Your task to perform on an android device: open app "Etsy: Buy & Sell Unique Items" Image 0: 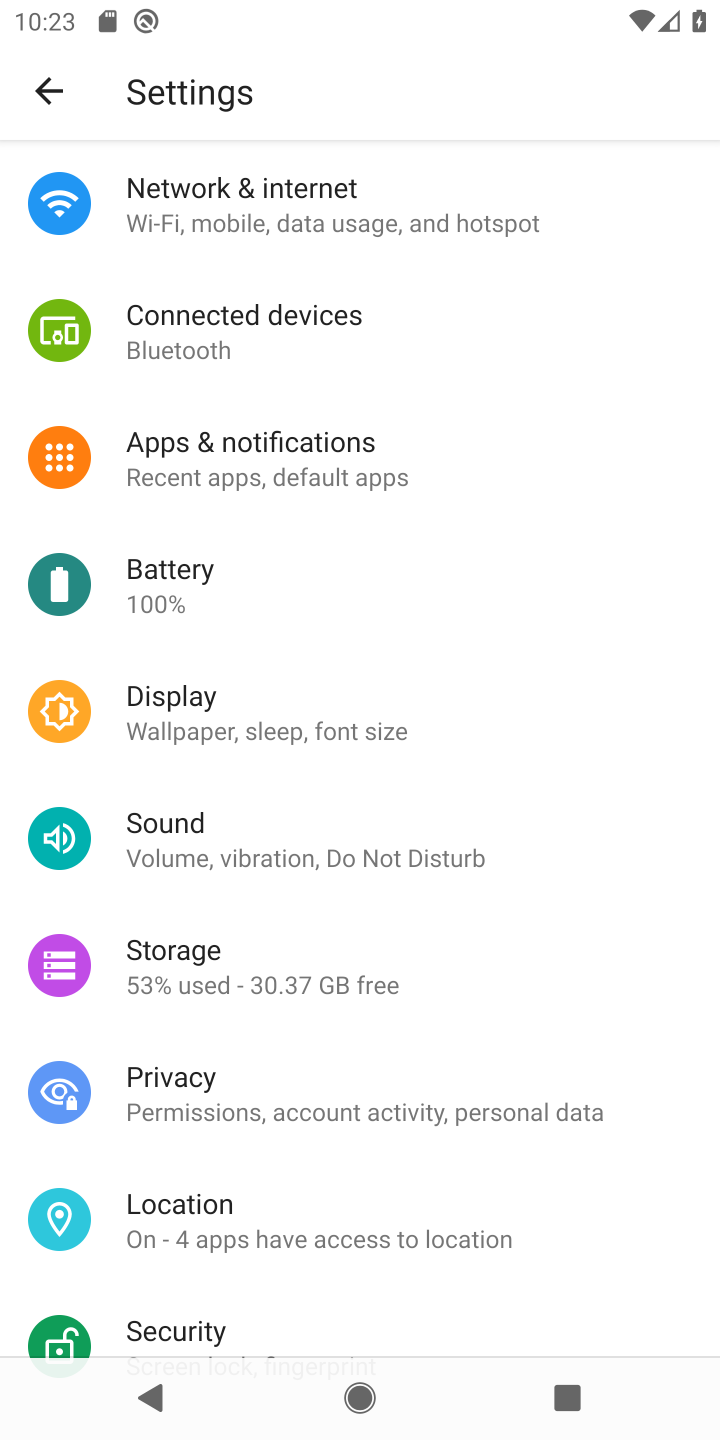
Step 0: press home button
Your task to perform on an android device: open app "Etsy: Buy & Sell Unique Items" Image 1: 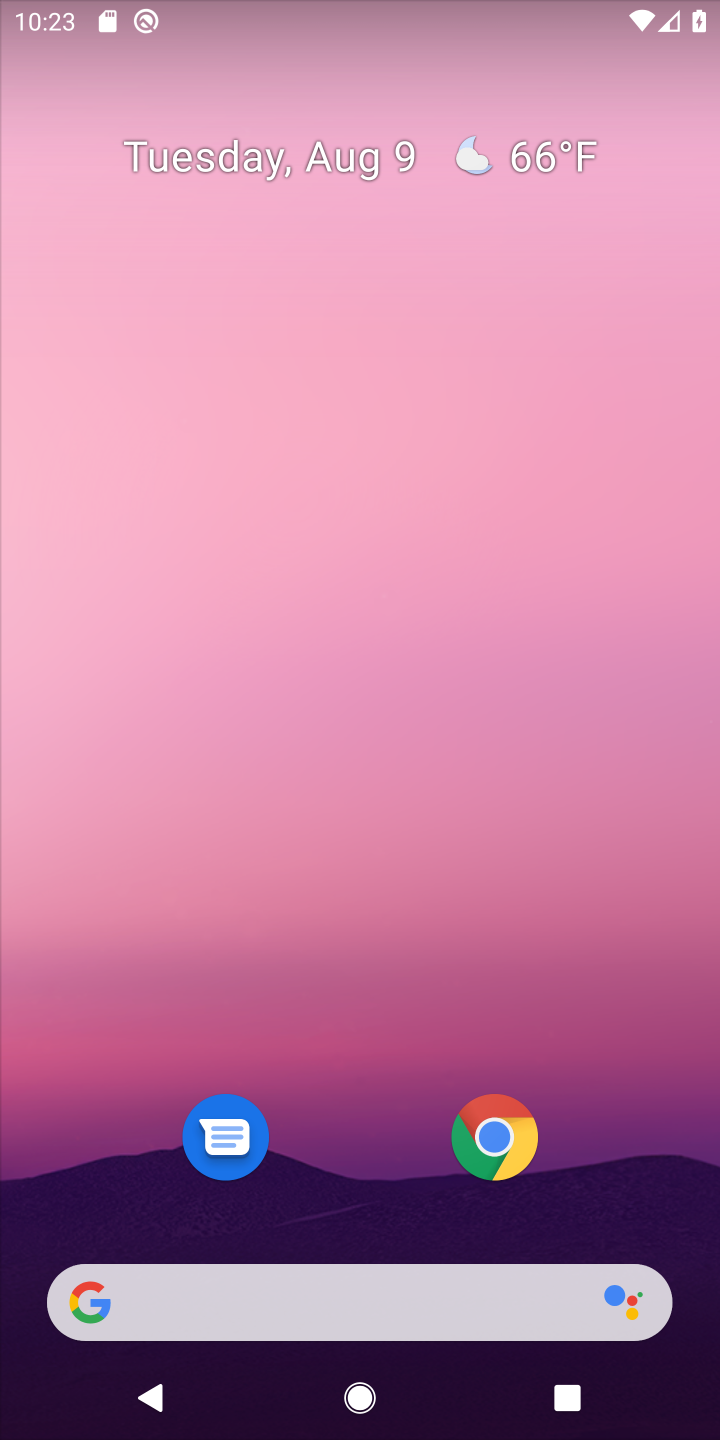
Step 1: drag from (365, 1142) to (349, 420)
Your task to perform on an android device: open app "Etsy: Buy & Sell Unique Items" Image 2: 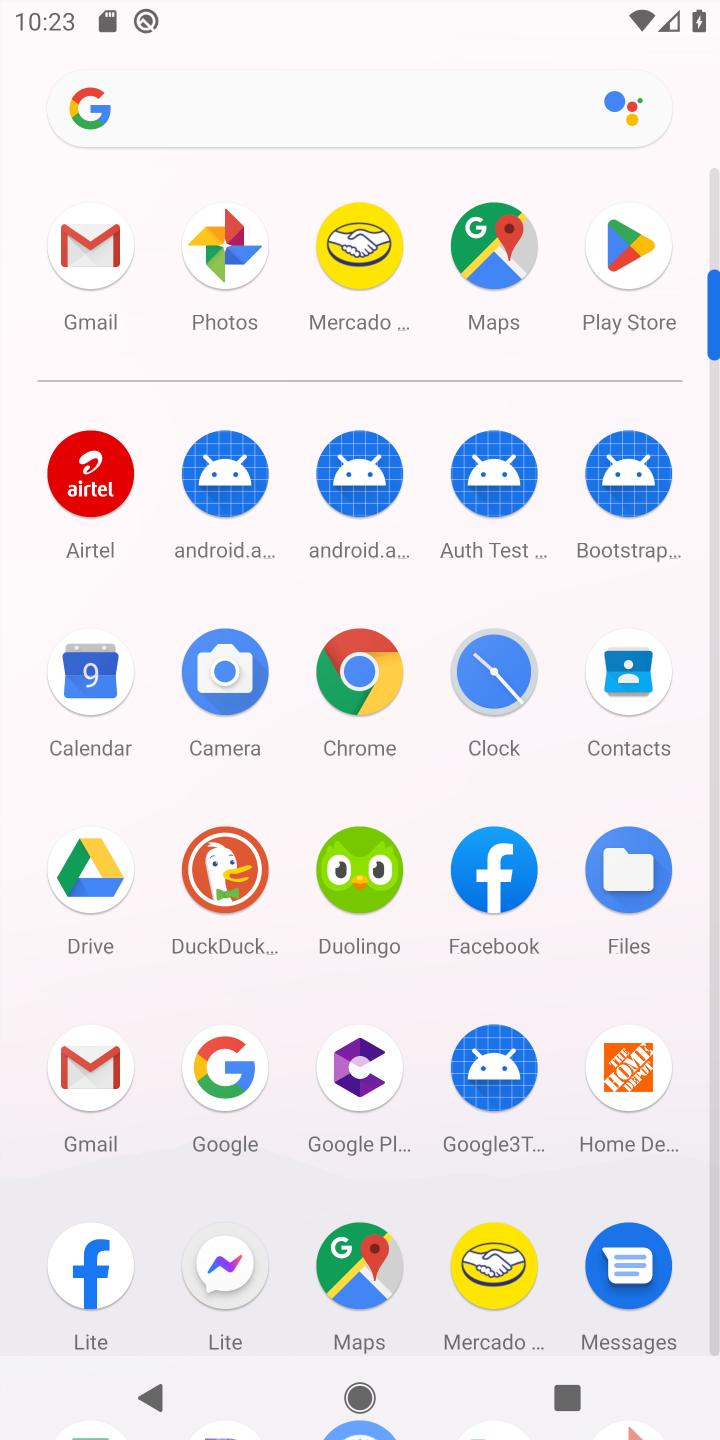
Step 2: click (621, 261)
Your task to perform on an android device: open app "Etsy: Buy & Sell Unique Items" Image 3: 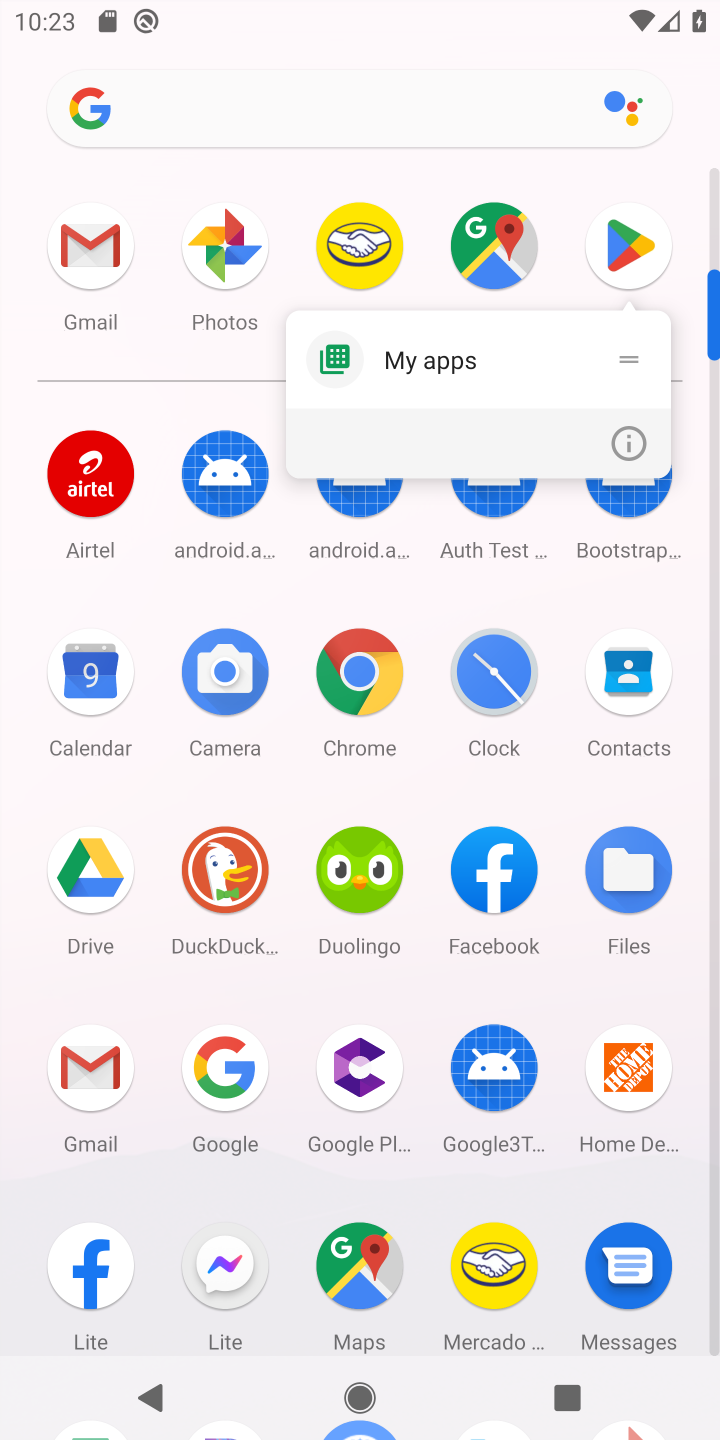
Step 3: click (599, 221)
Your task to perform on an android device: open app "Etsy: Buy & Sell Unique Items" Image 4: 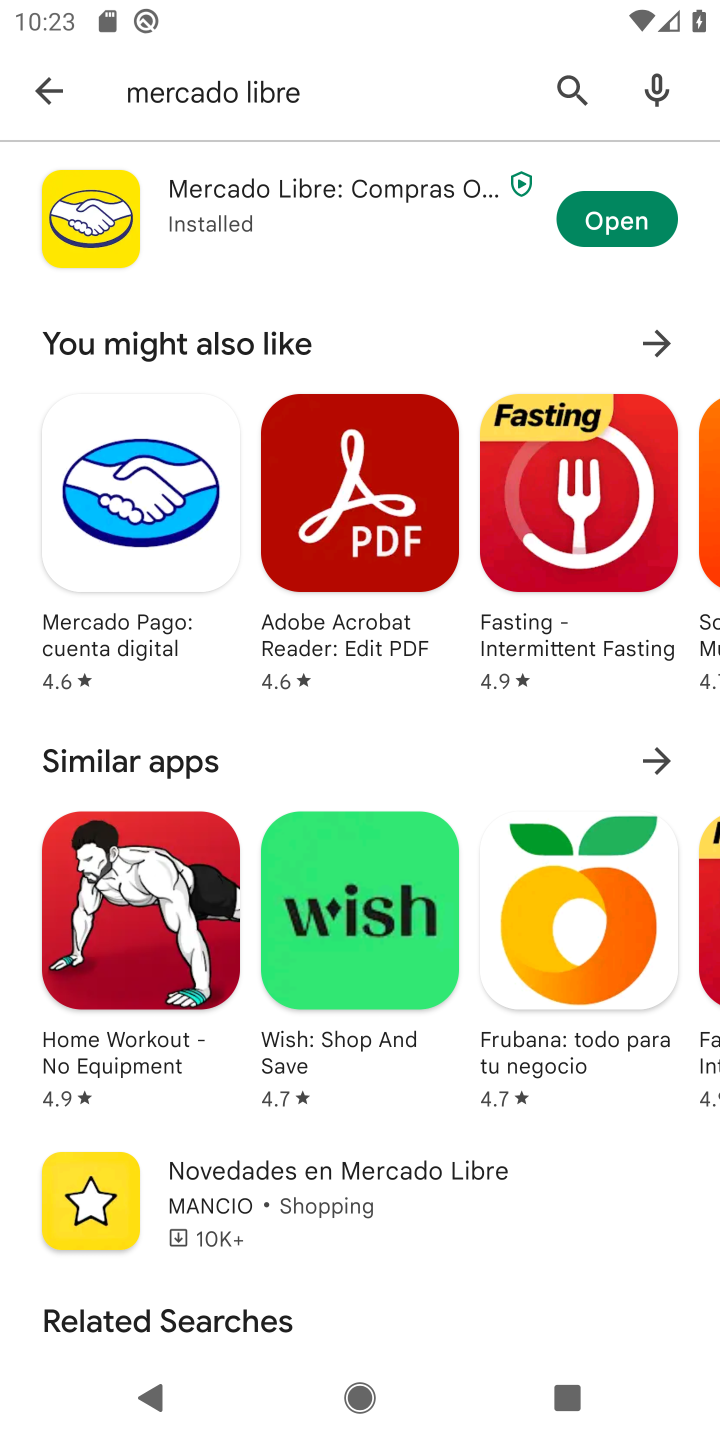
Step 4: click (580, 95)
Your task to perform on an android device: open app "Etsy: Buy & Sell Unique Items" Image 5: 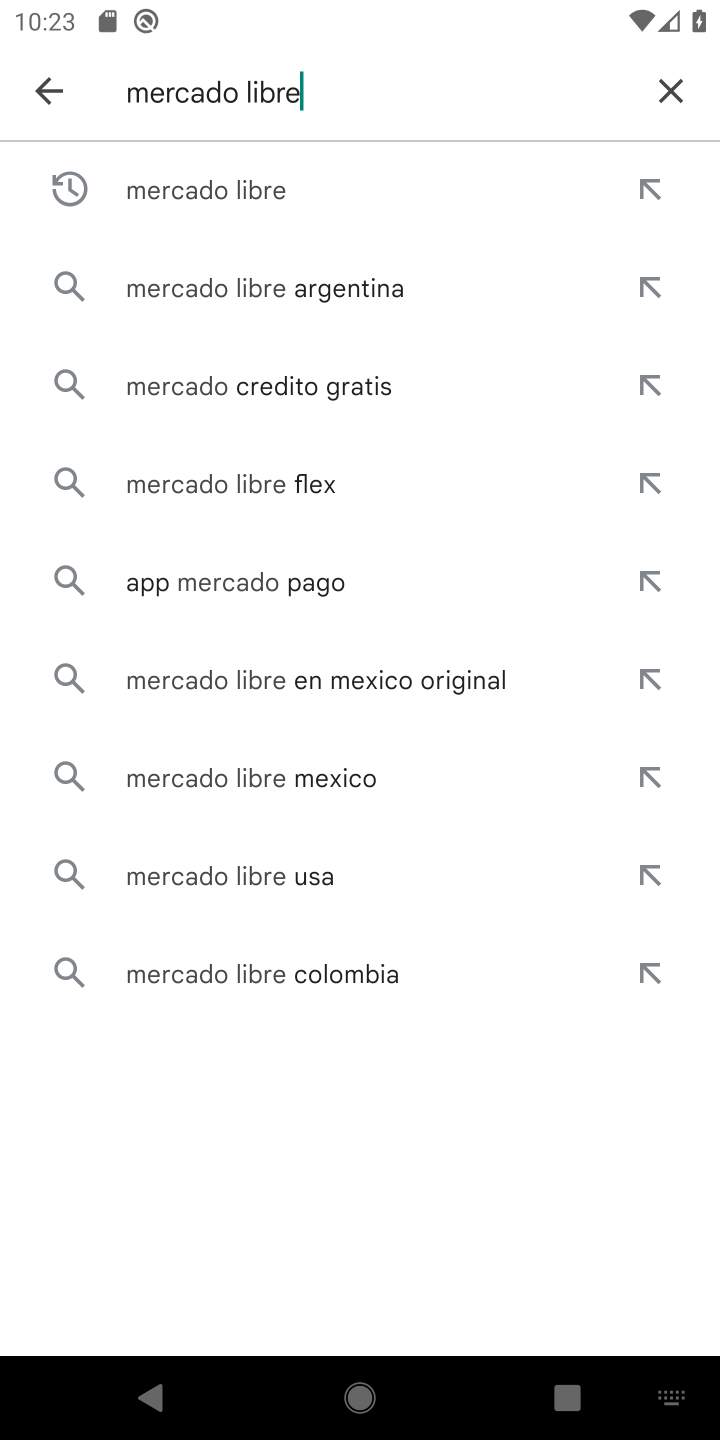
Step 5: click (679, 100)
Your task to perform on an android device: open app "Etsy: Buy & Sell Unique Items" Image 6: 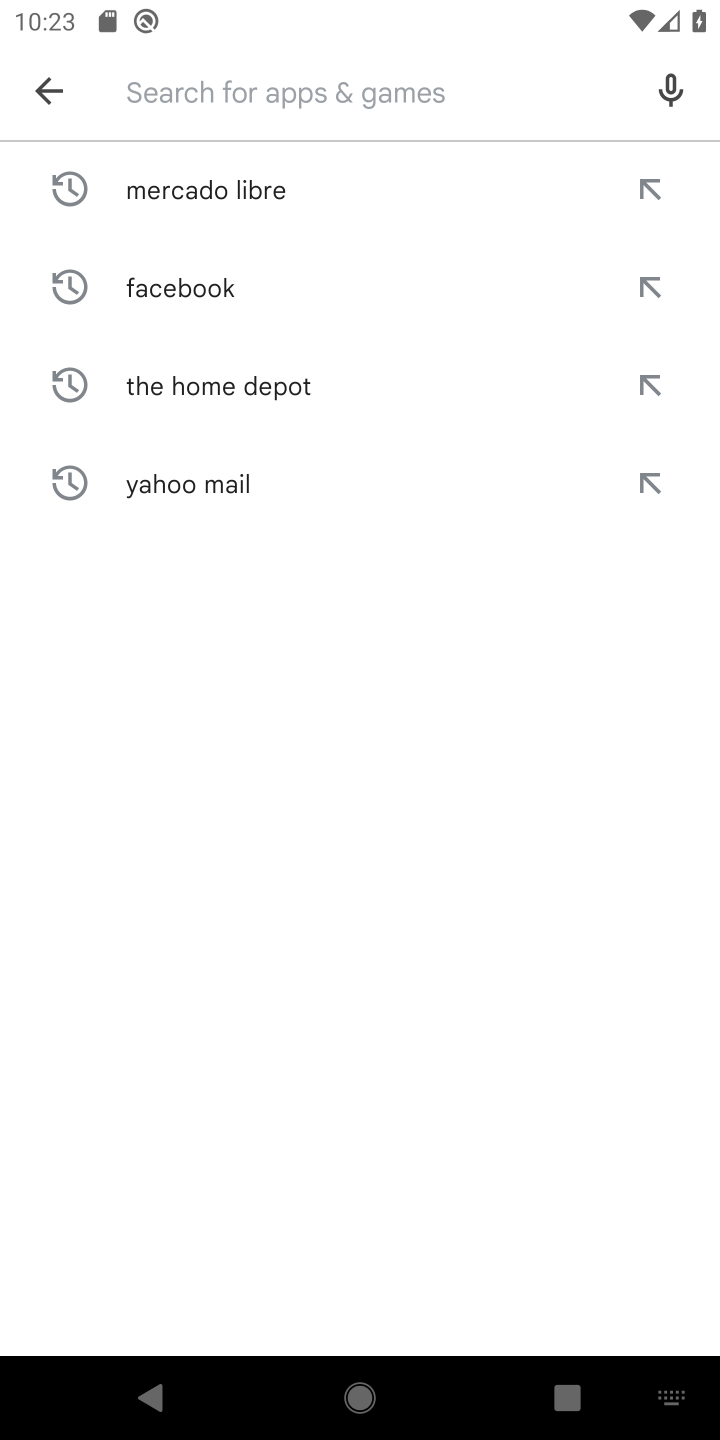
Step 6: type "Etsy: Buy & Sell Unique Items"
Your task to perform on an android device: open app "Etsy: Buy & Sell Unique Items" Image 7: 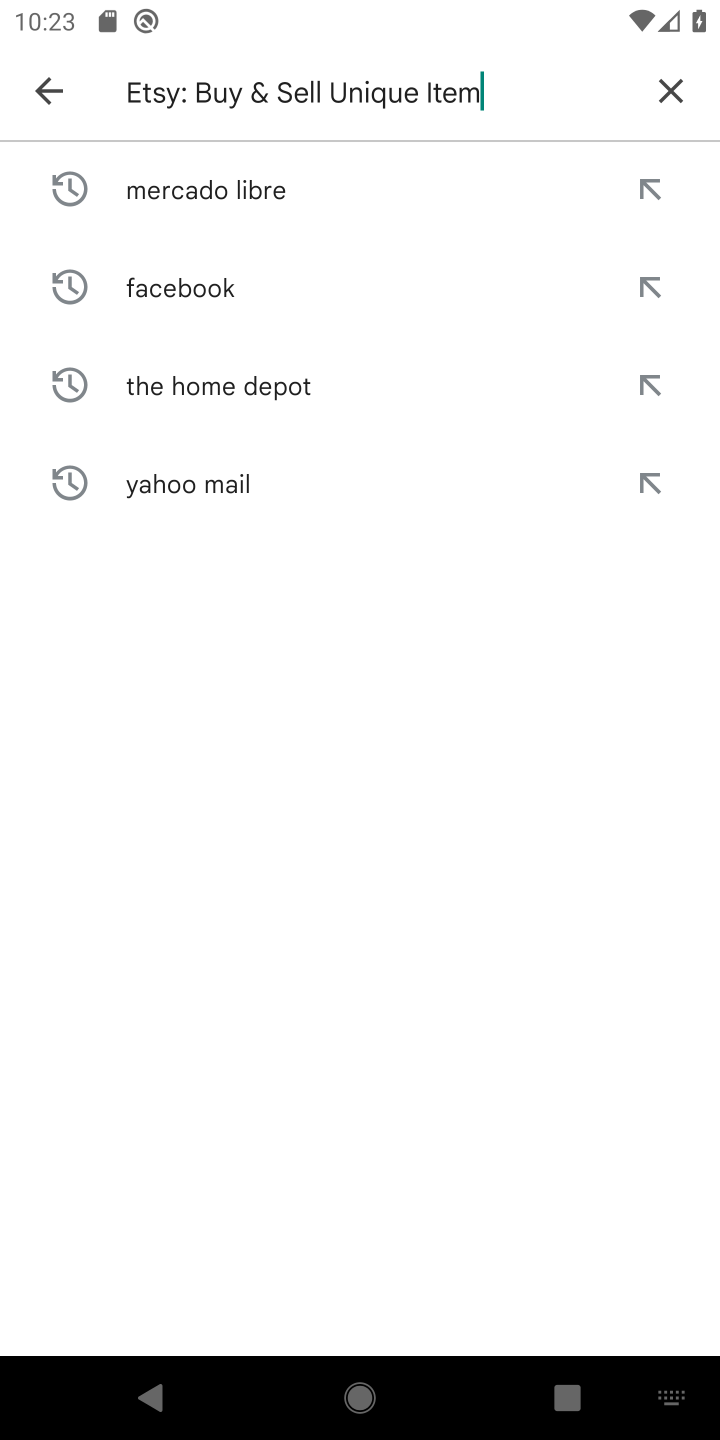
Step 7: type ""
Your task to perform on an android device: open app "Etsy: Buy & Sell Unique Items" Image 8: 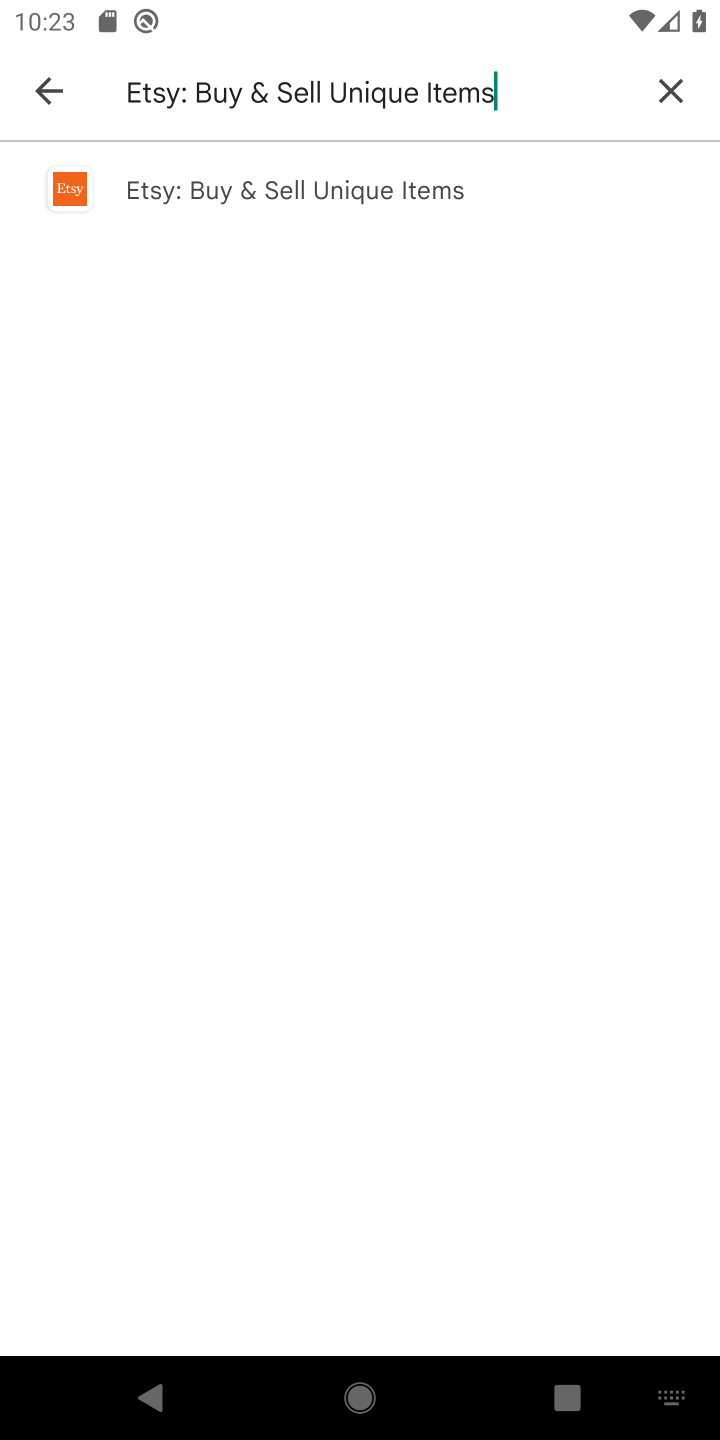
Step 8: click (318, 193)
Your task to perform on an android device: open app "Etsy: Buy & Sell Unique Items" Image 9: 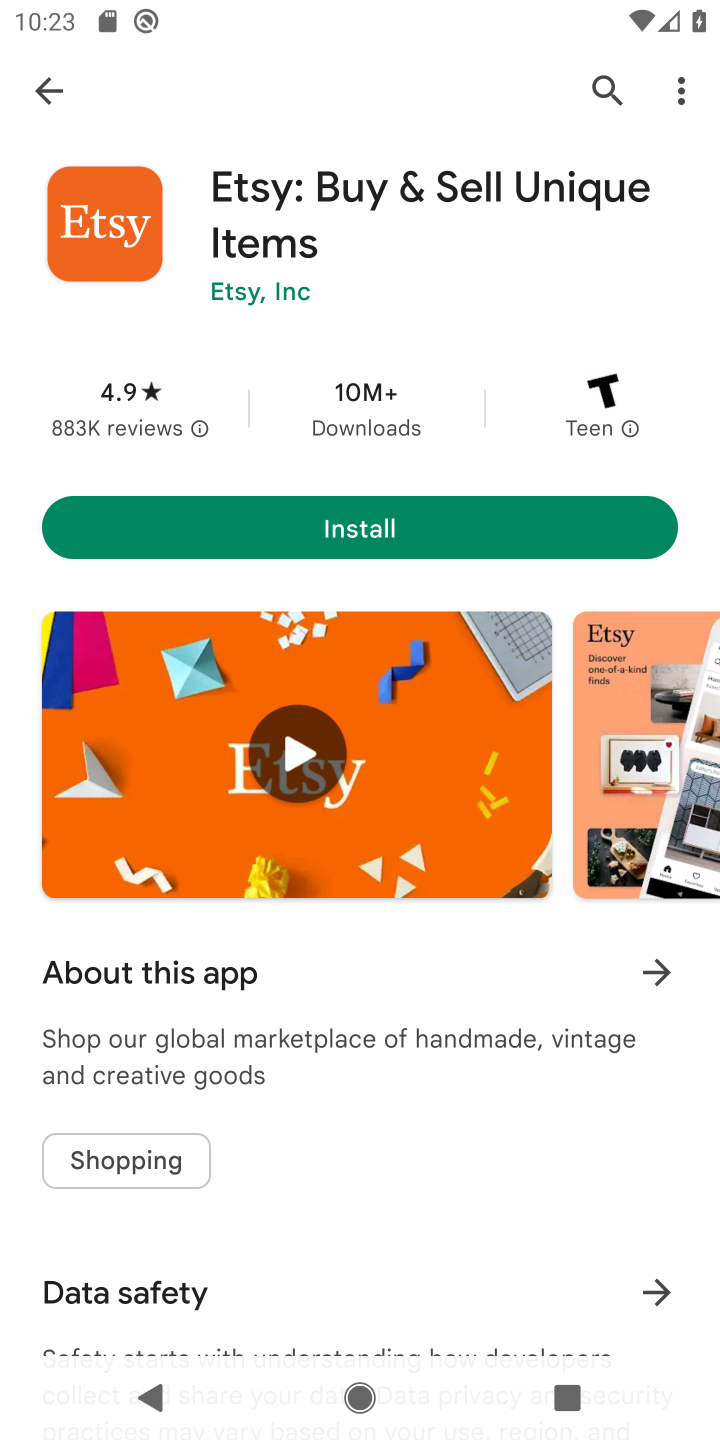
Step 9: task complete